Your task to perform on an android device: Go to calendar. Show me events next week Image 0: 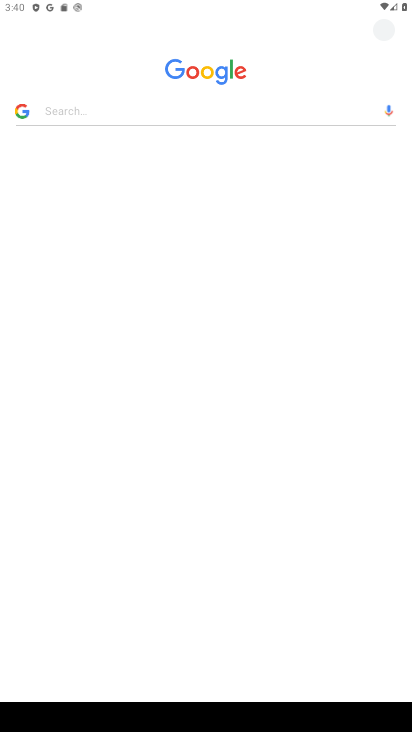
Step 0: press home button
Your task to perform on an android device: Go to calendar. Show me events next week Image 1: 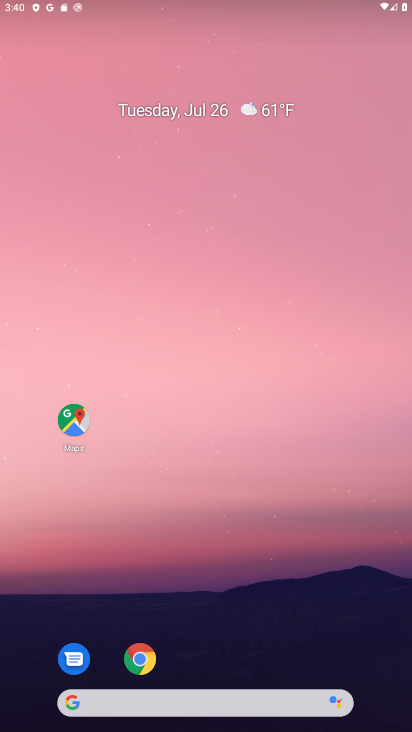
Step 1: drag from (324, 608) to (223, 34)
Your task to perform on an android device: Go to calendar. Show me events next week Image 2: 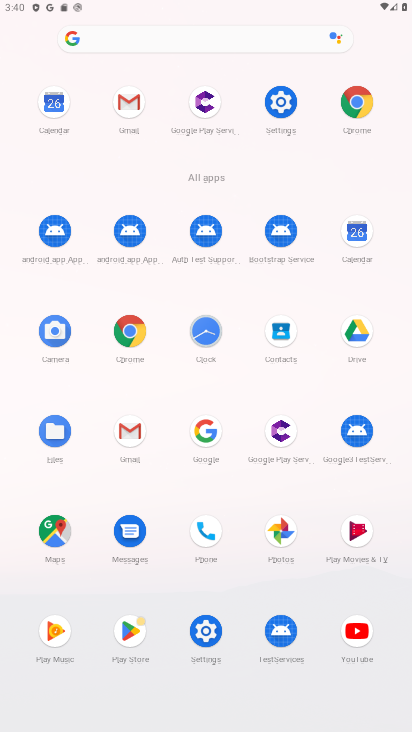
Step 2: click (345, 233)
Your task to perform on an android device: Go to calendar. Show me events next week Image 3: 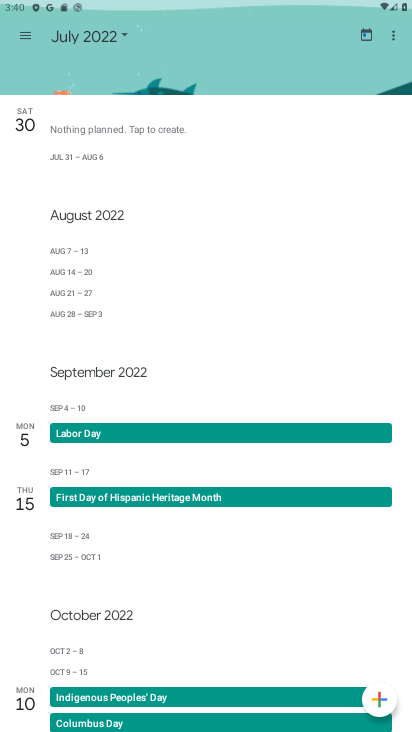
Step 3: click (88, 36)
Your task to perform on an android device: Go to calendar. Show me events next week Image 4: 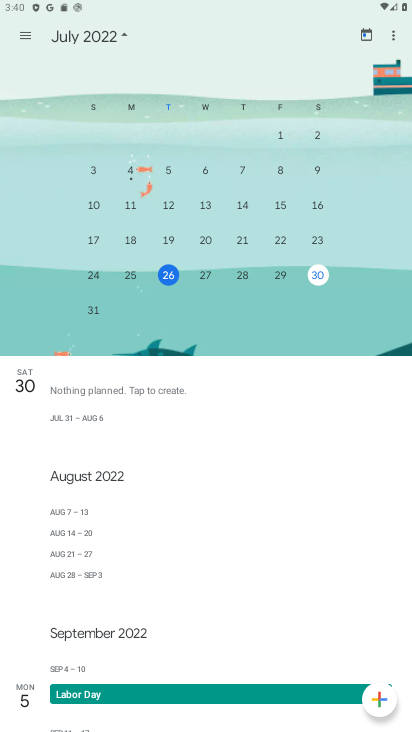
Step 4: drag from (298, 249) to (62, 209)
Your task to perform on an android device: Go to calendar. Show me events next week Image 5: 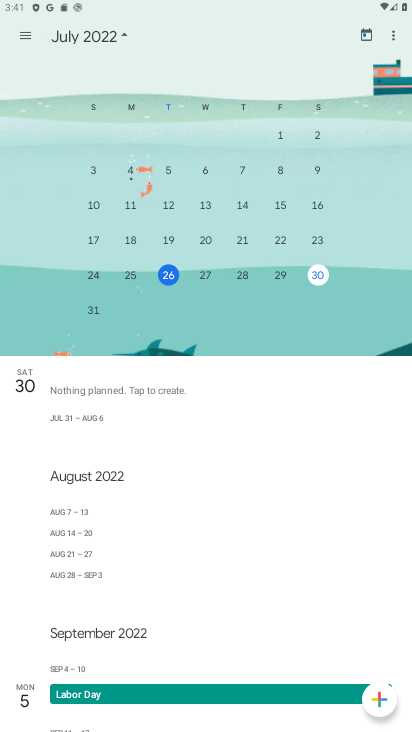
Step 5: drag from (73, 237) to (358, 212)
Your task to perform on an android device: Go to calendar. Show me events next week Image 6: 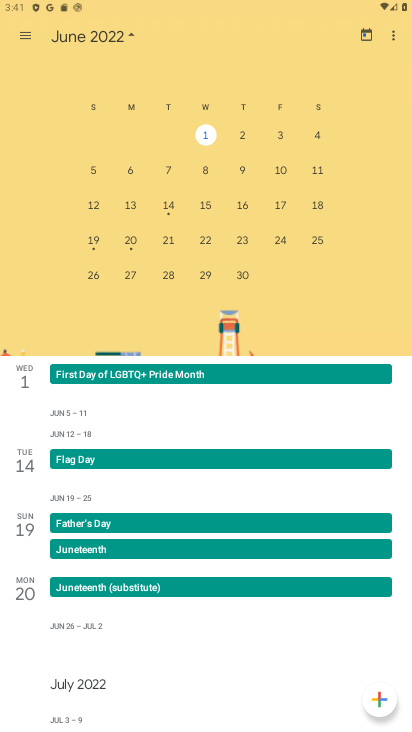
Step 6: drag from (339, 200) to (4, 183)
Your task to perform on an android device: Go to calendar. Show me events next week Image 7: 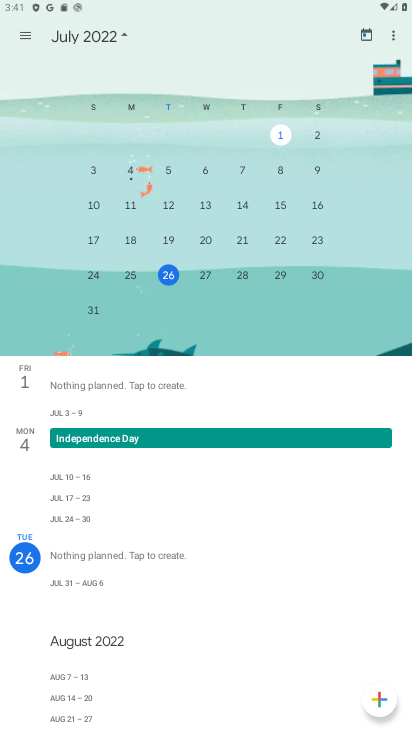
Step 7: drag from (351, 206) to (45, 184)
Your task to perform on an android device: Go to calendar. Show me events next week Image 8: 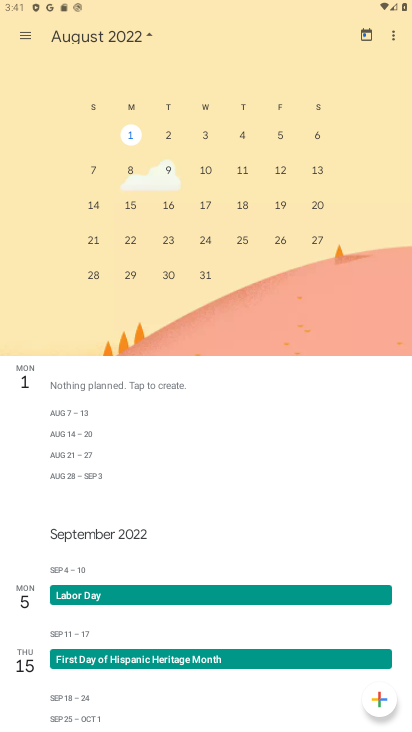
Step 8: click (234, 134)
Your task to perform on an android device: Go to calendar. Show me events next week Image 9: 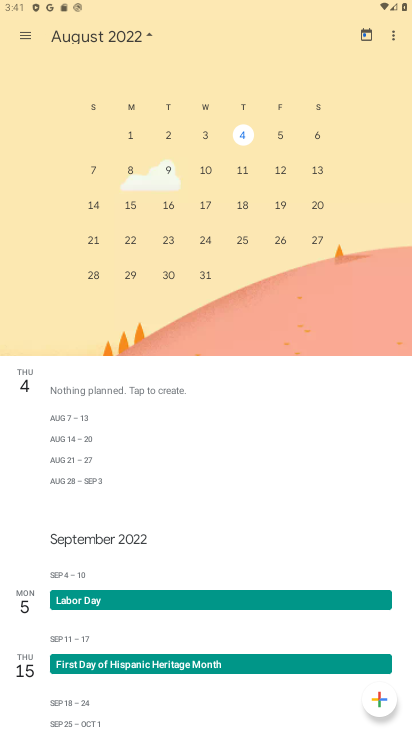
Step 9: click (15, 35)
Your task to perform on an android device: Go to calendar. Show me events next week Image 10: 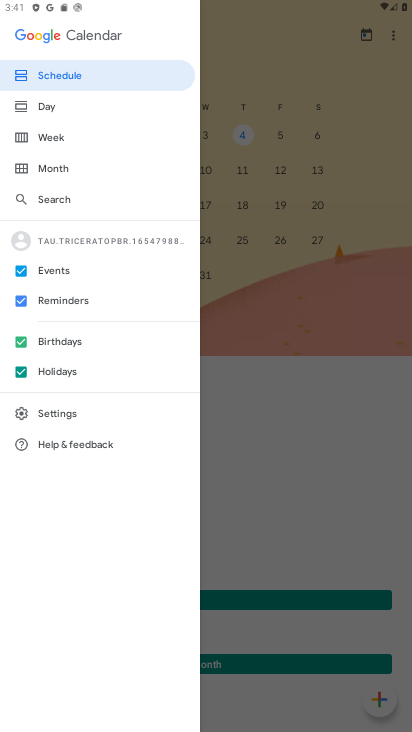
Step 10: click (61, 129)
Your task to perform on an android device: Go to calendar. Show me events next week Image 11: 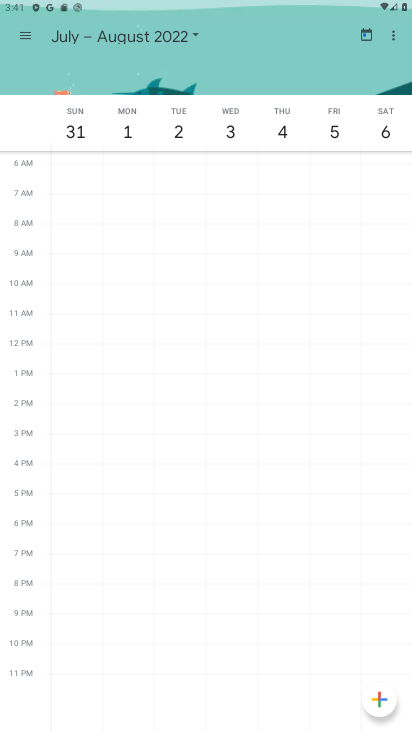
Step 11: task complete